Your task to perform on an android device: delete a single message in the gmail app Image 0: 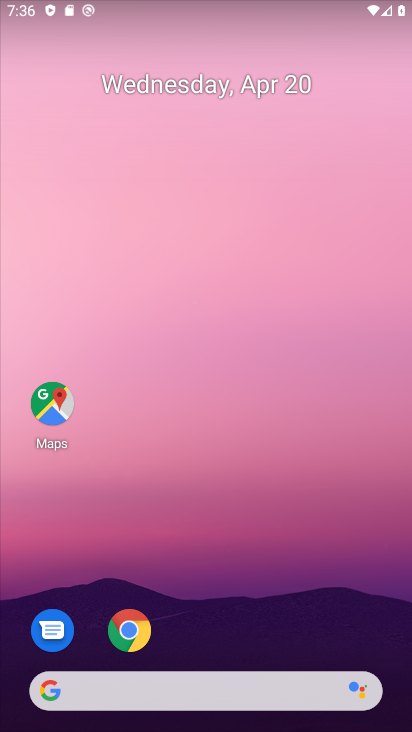
Step 0: drag from (274, 672) to (343, 16)
Your task to perform on an android device: delete a single message in the gmail app Image 1: 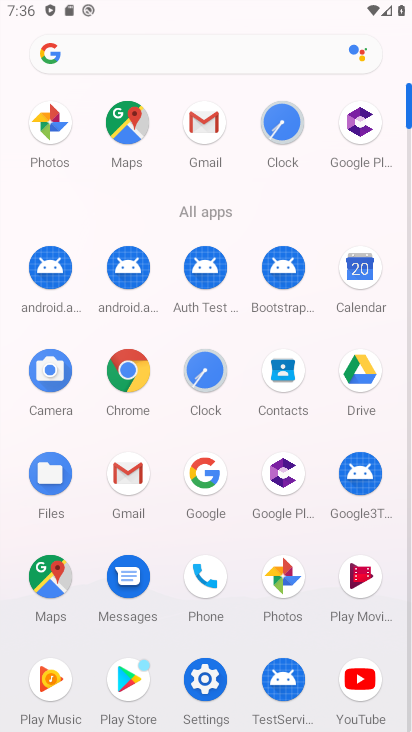
Step 1: drag from (185, 691) to (269, 345)
Your task to perform on an android device: delete a single message in the gmail app Image 2: 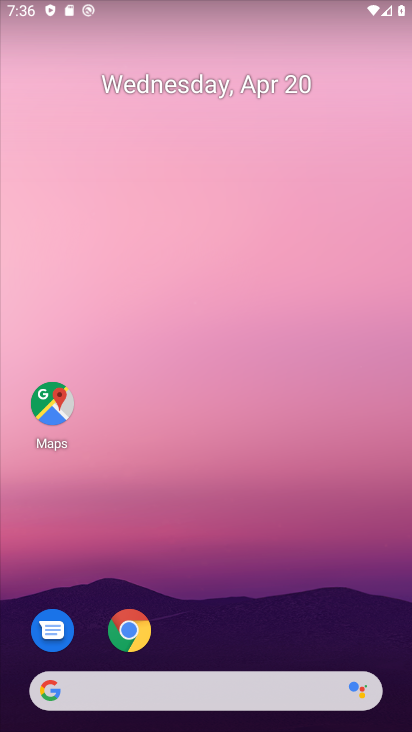
Step 2: drag from (215, 656) to (131, 142)
Your task to perform on an android device: delete a single message in the gmail app Image 3: 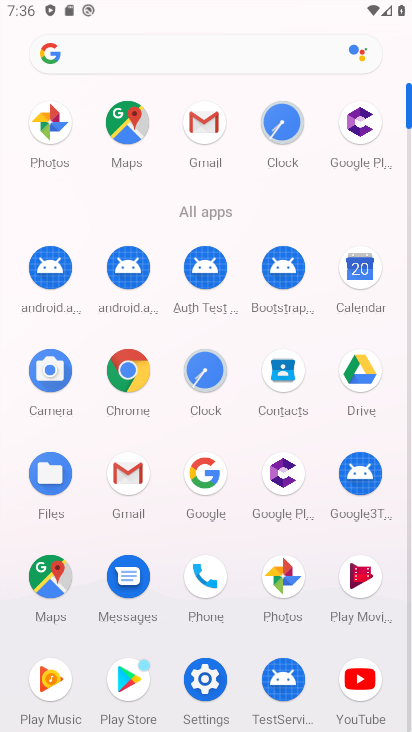
Step 3: click (123, 487)
Your task to perform on an android device: delete a single message in the gmail app Image 4: 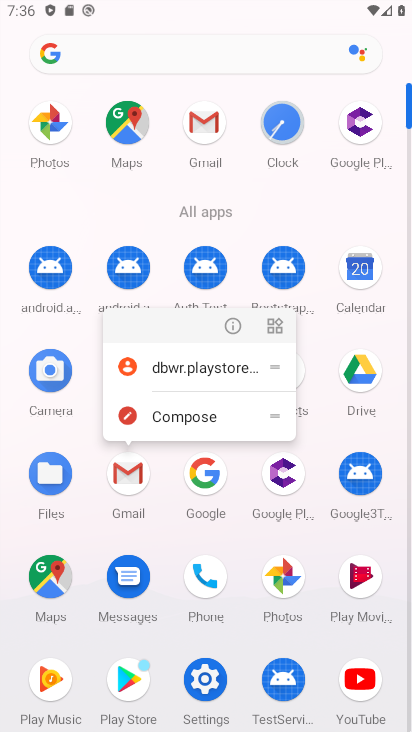
Step 4: click (117, 479)
Your task to perform on an android device: delete a single message in the gmail app Image 5: 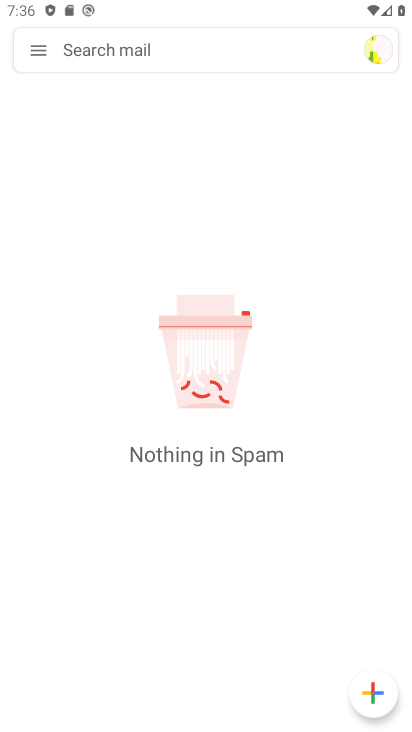
Step 5: click (32, 55)
Your task to perform on an android device: delete a single message in the gmail app Image 6: 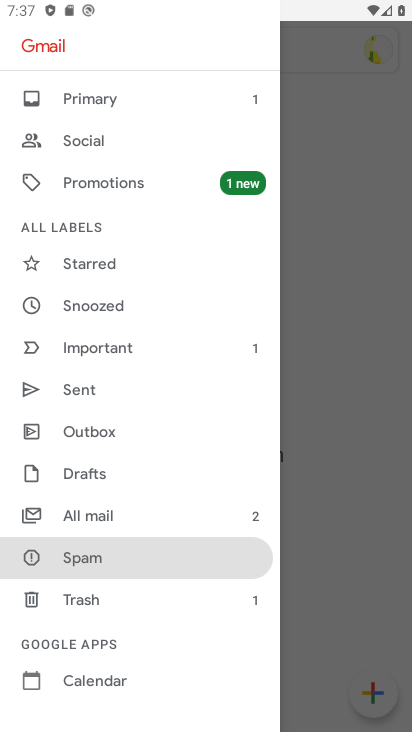
Step 6: click (162, 522)
Your task to perform on an android device: delete a single message in the gmail app Image 7: 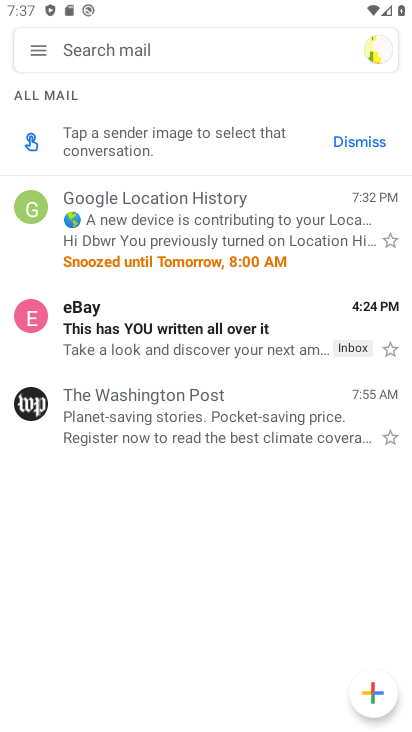
Step 7: click (177, 223)
Your task to perform on an android device: delete a single message in the gmail app Image 8: 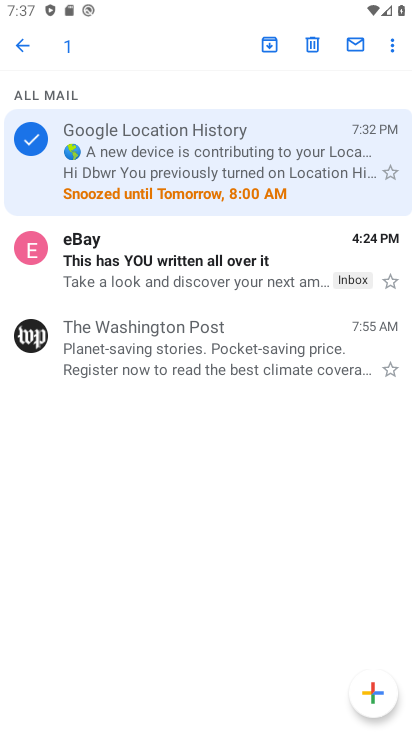
Step 8: click (313, 50)
Your task to perform on an android device: delete a single message in the gmail app Image 9: 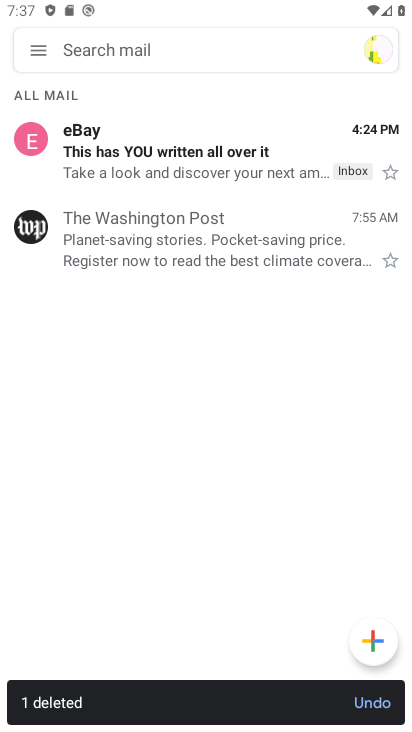
Step 9: click (250, 155)
Your task to perform on an android device: delete a single message in the gmail app Image 10: 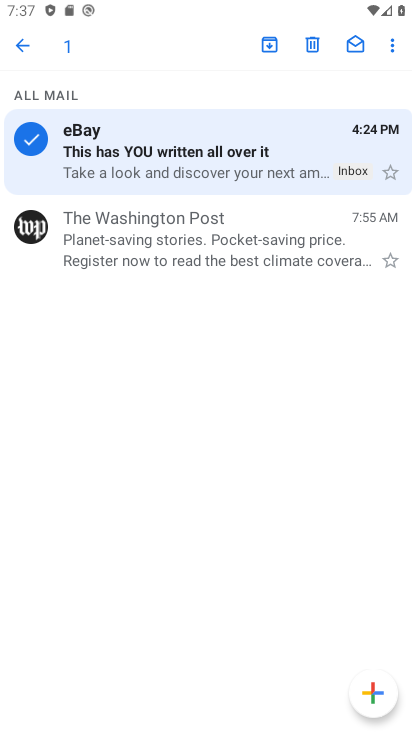
Step 10: task complete